Your task to perform on an android device: Clear the shopping cart on newegg.com. Search for "rayovac triple a" on newegg.com, select the first entry, and add it to the cart. Image 0: 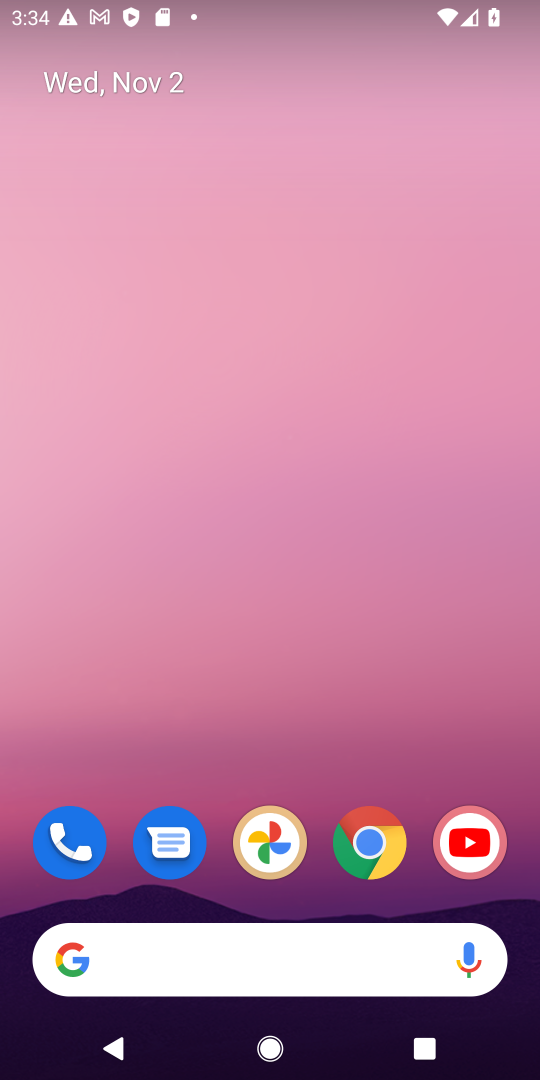
Step 0: click (360, 837)
Your task to perform on an android device: Clear the shopping cart on newegg.com. Search for "rayovac triple a" on newegg.com, select the first entry, and add it to the cart. Image 1: 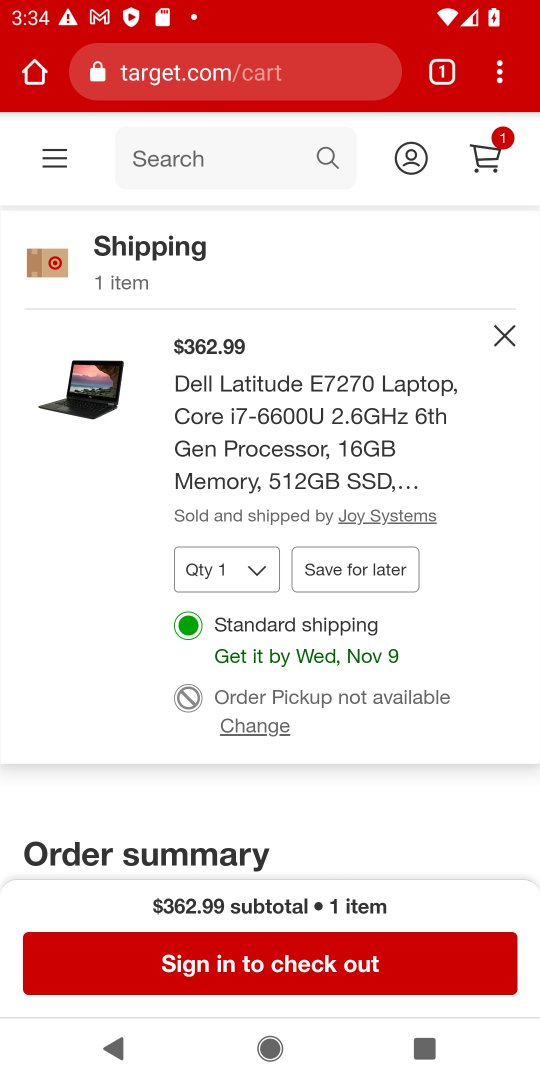
Step 1: click (260, 79)
Your task to perform on an android device: Clear the shopping cart on newegg.com. Search for "rayovac triple a" on newegg.com, select the first entry, and add it to the cart. Image 2: 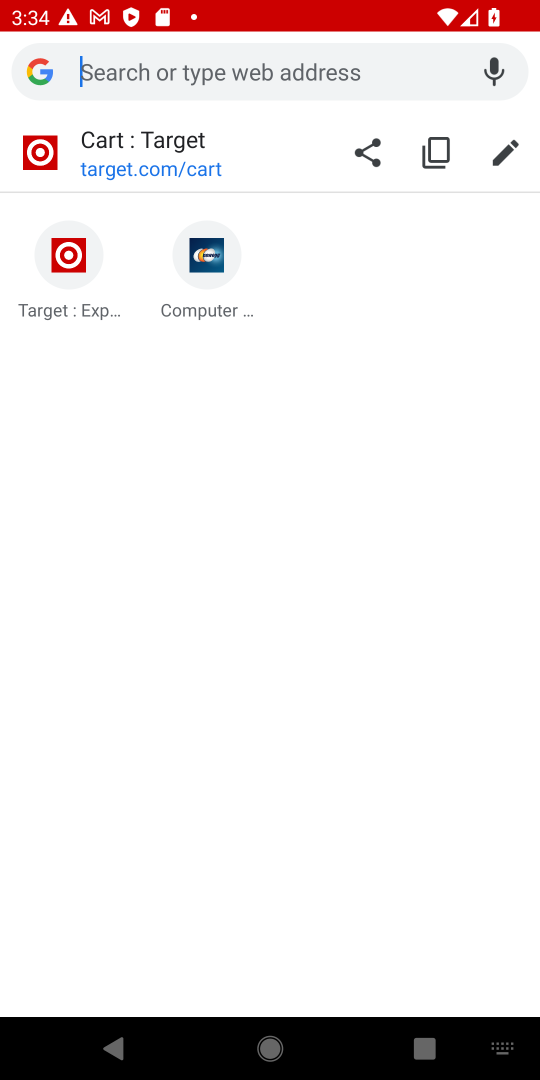
Step 2: type "newegg.com"
Your task to perform on an android device: Clear the shopping cart on newegg.com. Search for "rayovac triple a" on newegg.com, select the first entry, and add it to the cart. Image 3: 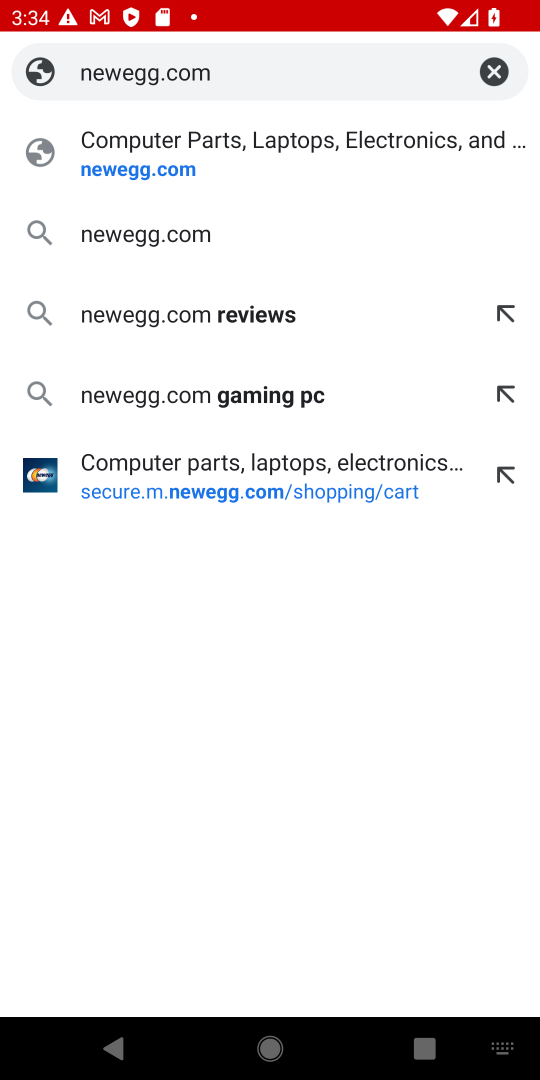
Step 3: press enter
Your task to perform on an android device: Clear the shopping cart on newegg.com. Search for "rayovac triple a" on newegg.com, select the first entry, and add it to the cart. Image 4: 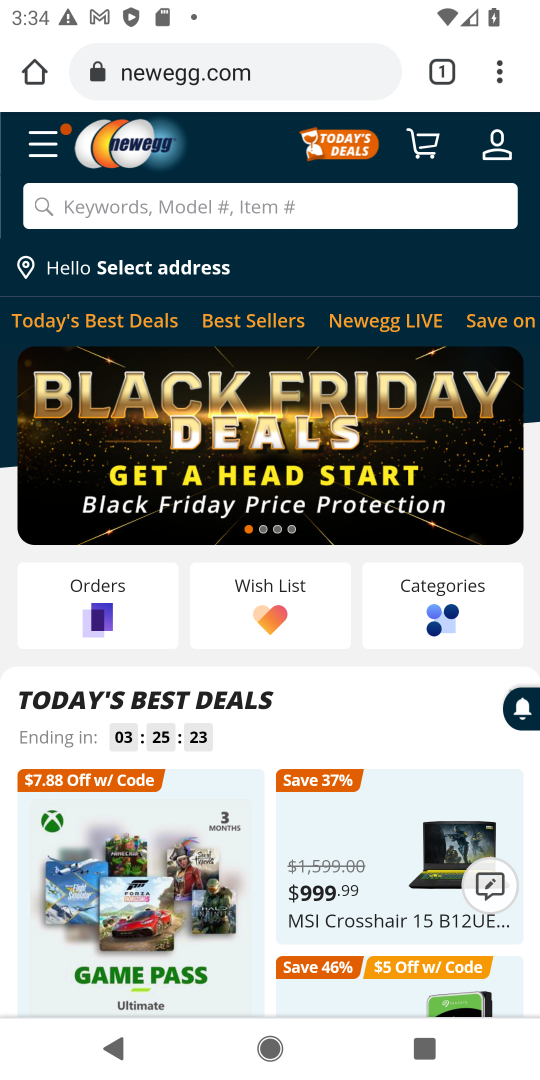
Step 4: click (339, 211)
Your task to perform on an android device: Clear the shopping cart on newegg.com. Search for "rayovac triple a" on newegg.com, select the first entry, and add it to the cart. Image 5: 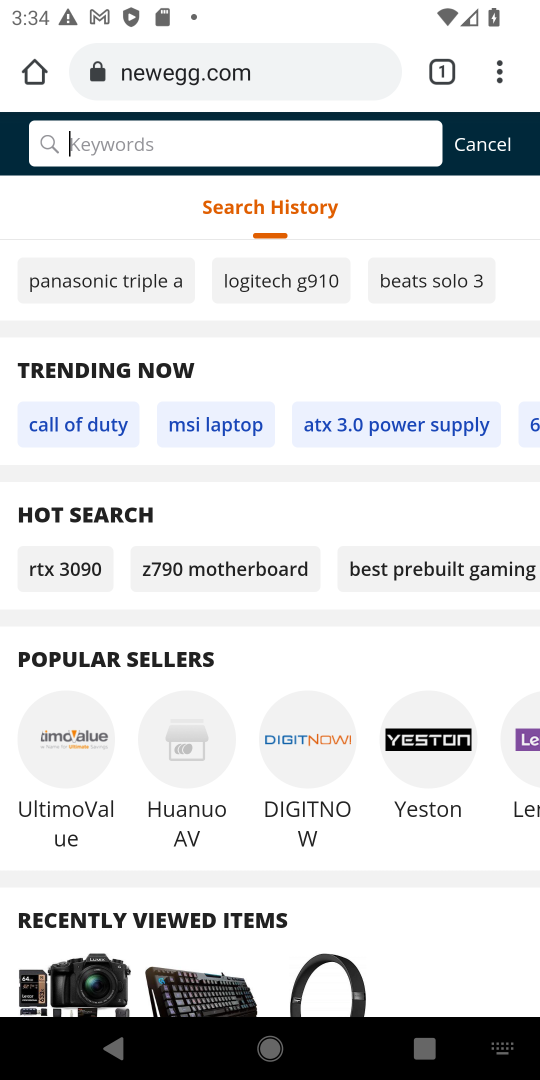
Step 5: type "rayovac triple a"
Your task to perform on an android device: Clear the shopping cart on newegg.com. Search for "rayovac triple a" on newegg.com, select the first entry, and add it to the cart. Image 6: 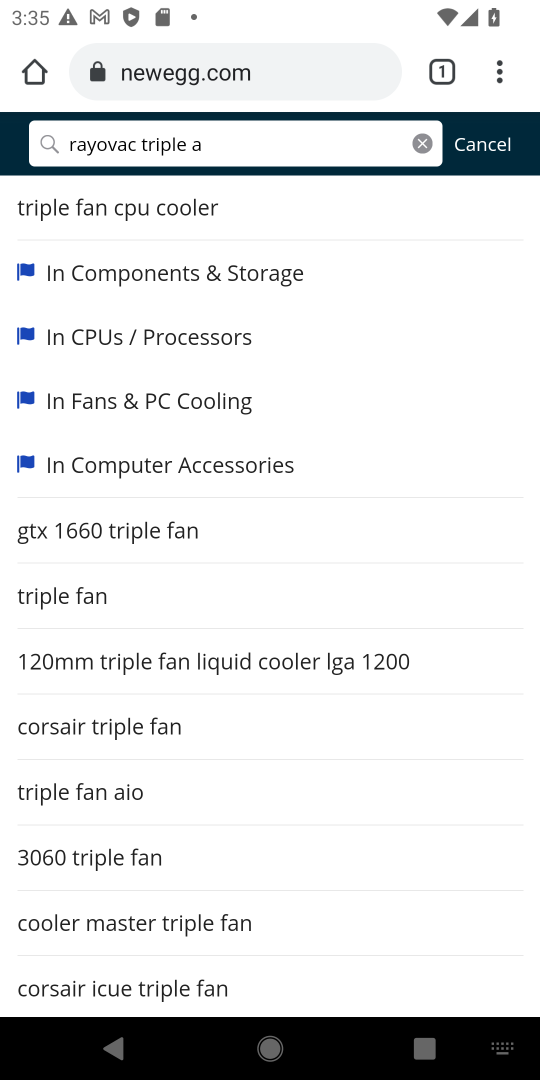
Step 6: press enter
Your task to perform on an android device: Clear the shopping cart on newegg.com. Search for "rayovac triple a" on newegg.com, select the first entry, and add it to the cart. Image 7: 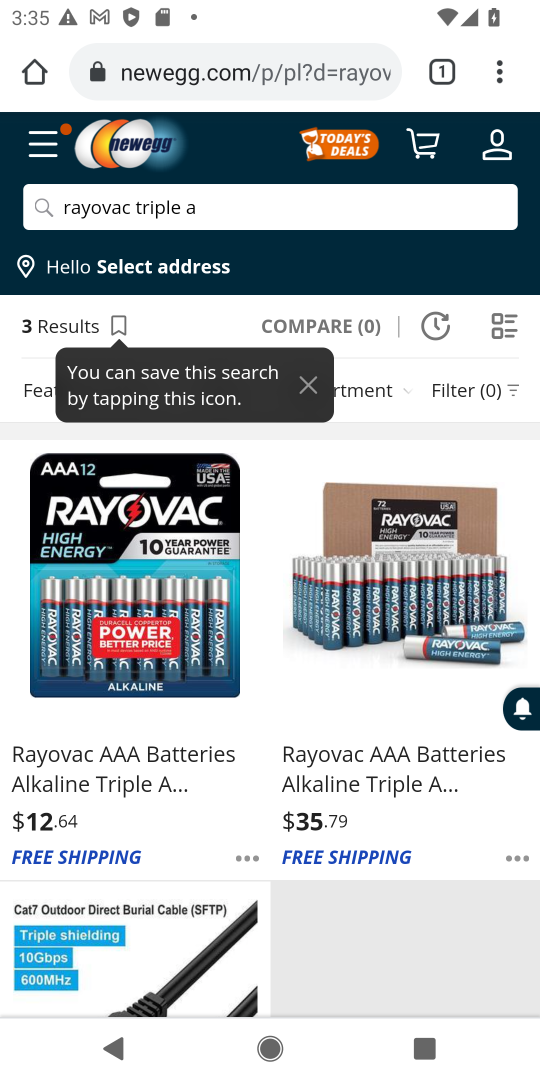
Step 7: click (102, 690)
Your task to perform on an android device: Clear the shopping cart on newegg.com. Search for "rayovac triple a" on newegg.com, select the first entry, and add it to the cart. Image 8: 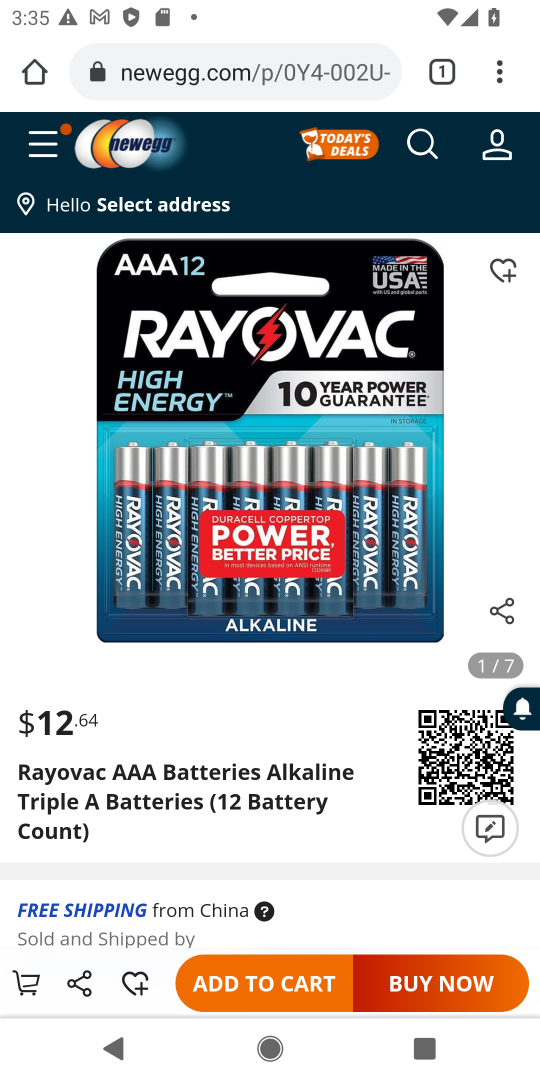
Step 8: click (257, 994)
Your task to perform on an android device: Clear the shopping cart on newegg.com. Search for "rayovac triple a" on newegg.com, select the first entry, and add it to the cart. Image 9: 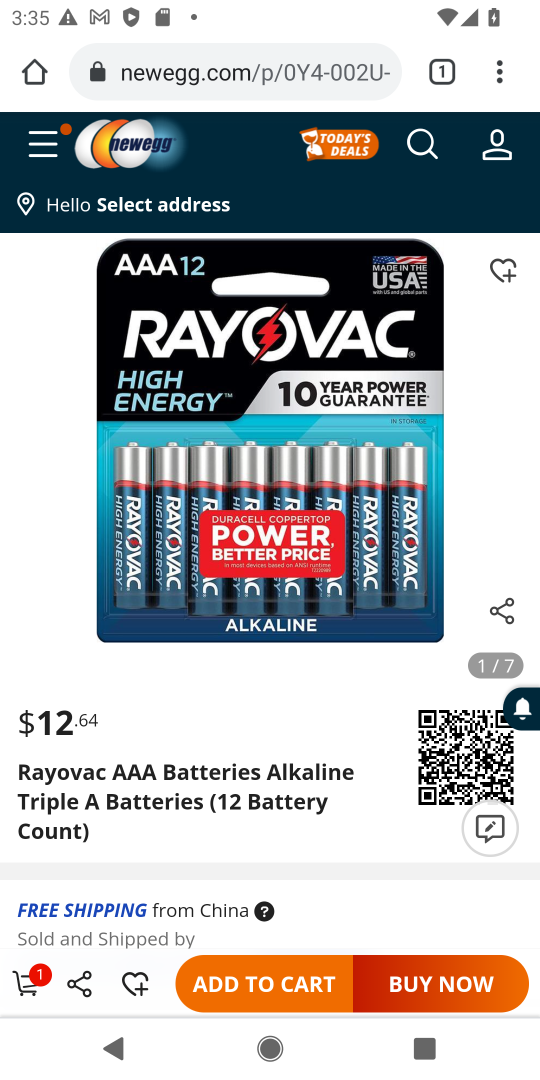
Step 9: click (28, 976)
Your task to perform on an android device: Clear the shopping cart on newegg.com. Search for "rayovac triple a" on newegg.com, select the first entry, and add it to the cart. Image 10: 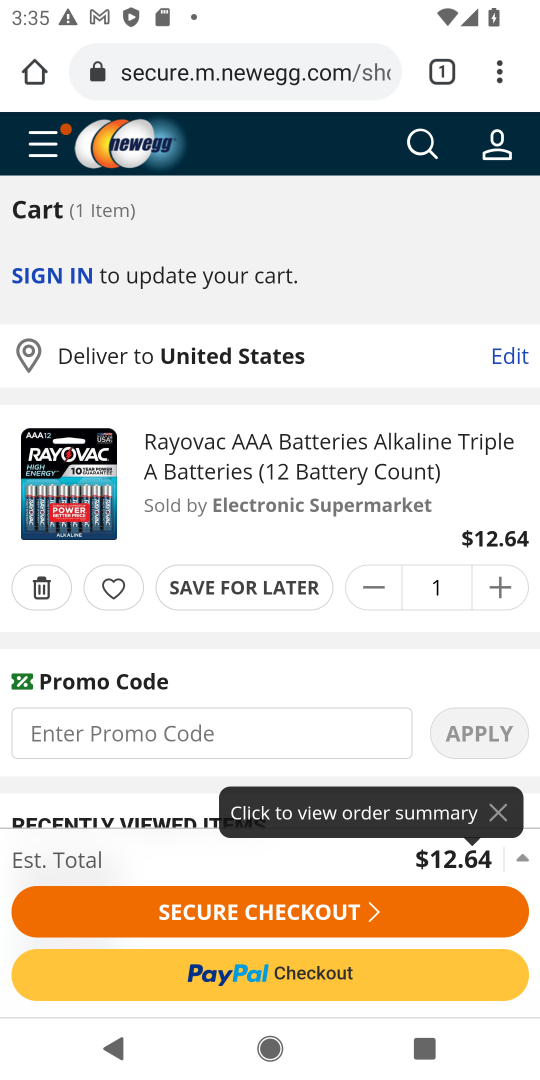
Step 10: task complete